Your task to perform on an android device: remove spam from my inbox in the gmail app Image 0: 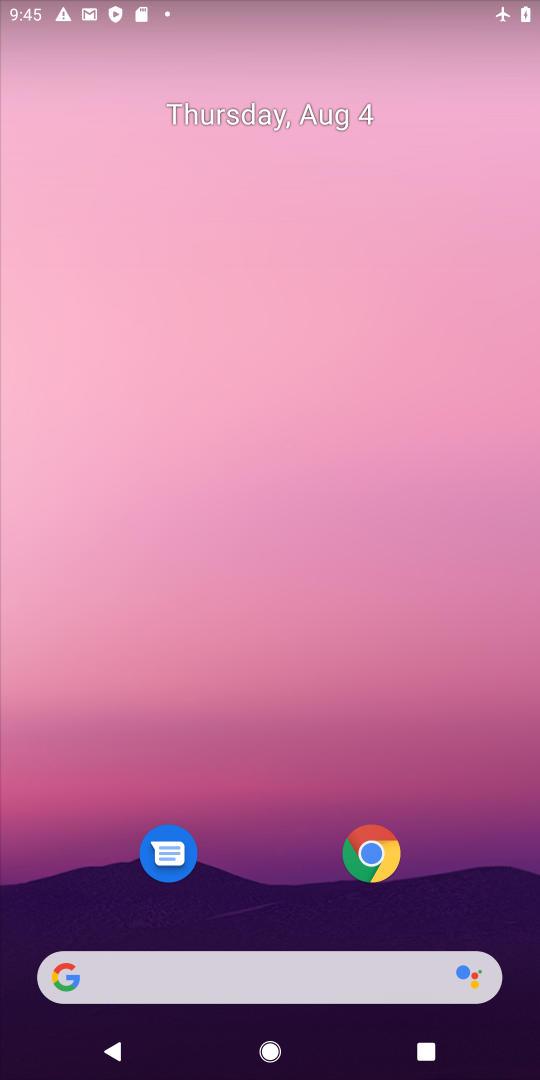
Step 0: press home button
Your task to perform on an android device: remove spam from my inbox in the gmail app Image 1: 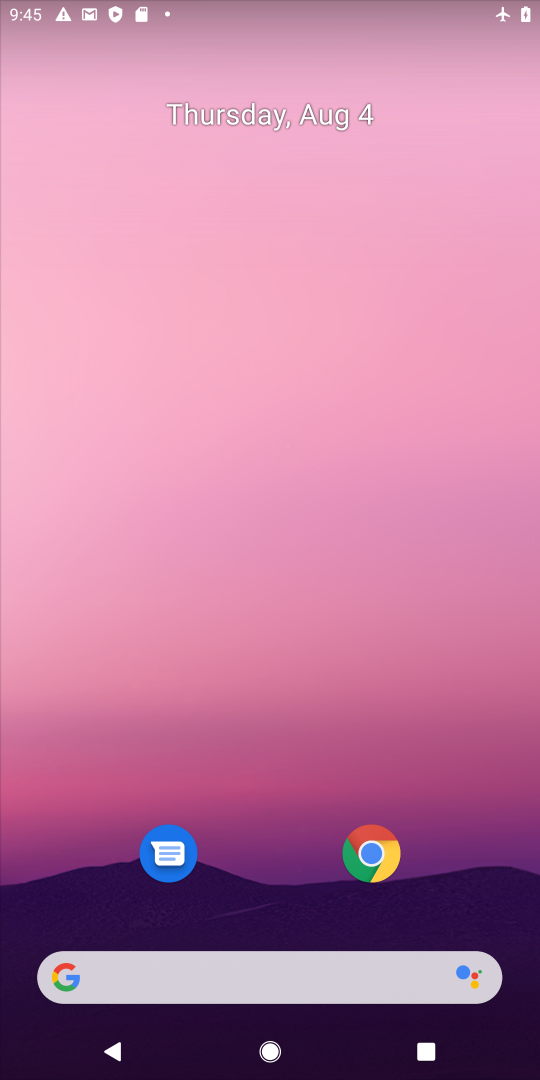
Step 1: drag from (220, 875) to (231, 89)
Your task to perform on an android device: remove spam from my inbox in the gmail app Image 2: 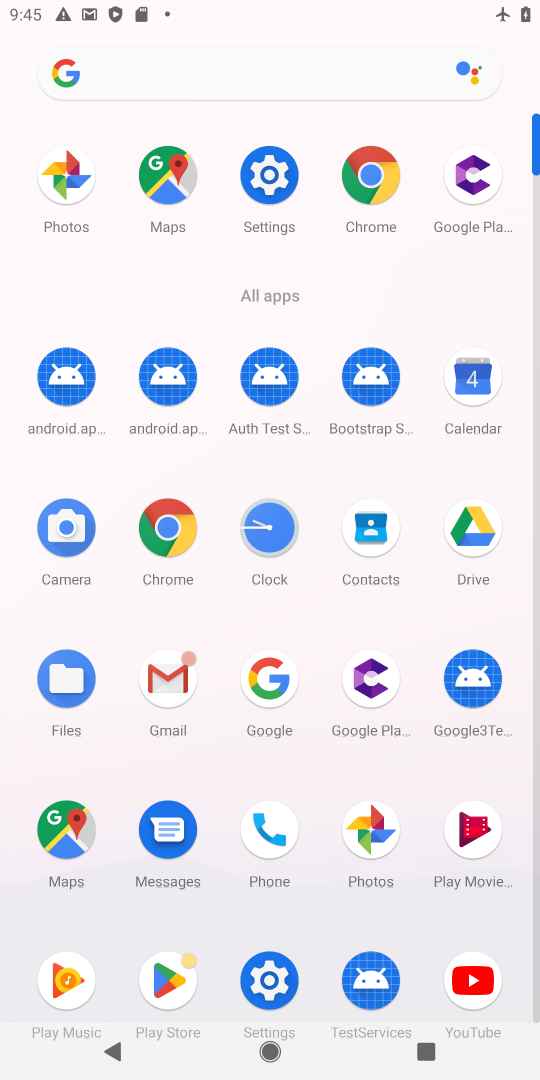
Step 2: click (163, 672)
Your task to perform on an android device: remove spam from my inbox in the gmail app Image 3: 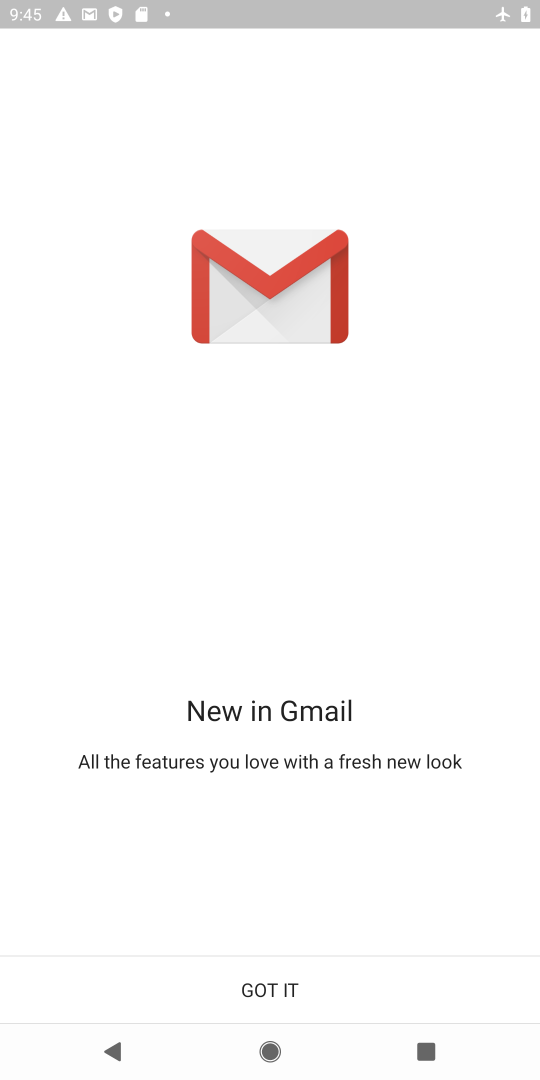
Step 3: click (305, 990)
Your task to perform on an android device: remove spam from my inbox in the gmail app Image 4: 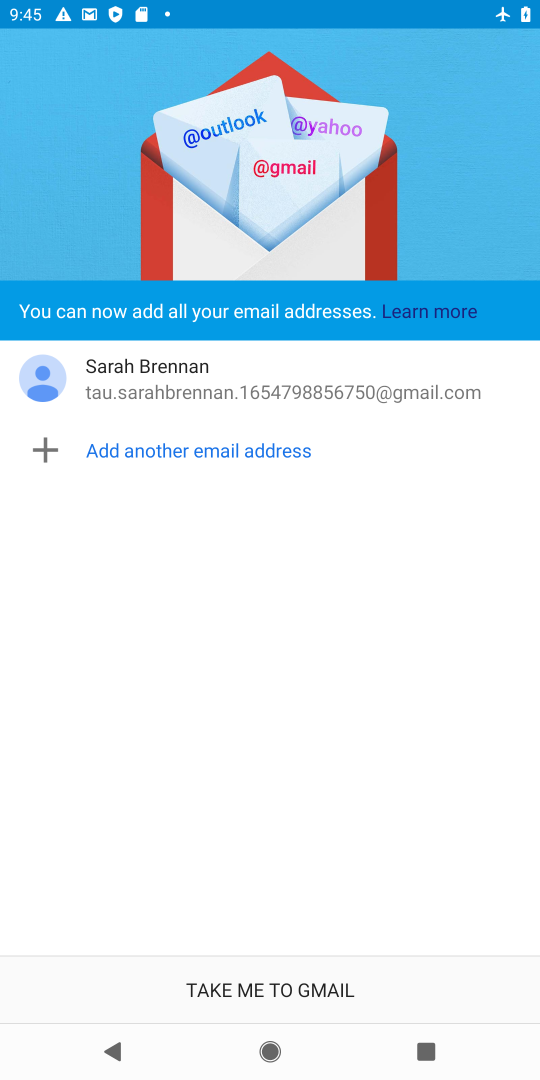
Step 4: click (304, 993)
Your task to perform on an android device: remove spam from my inbox in the gmail app Image 5: 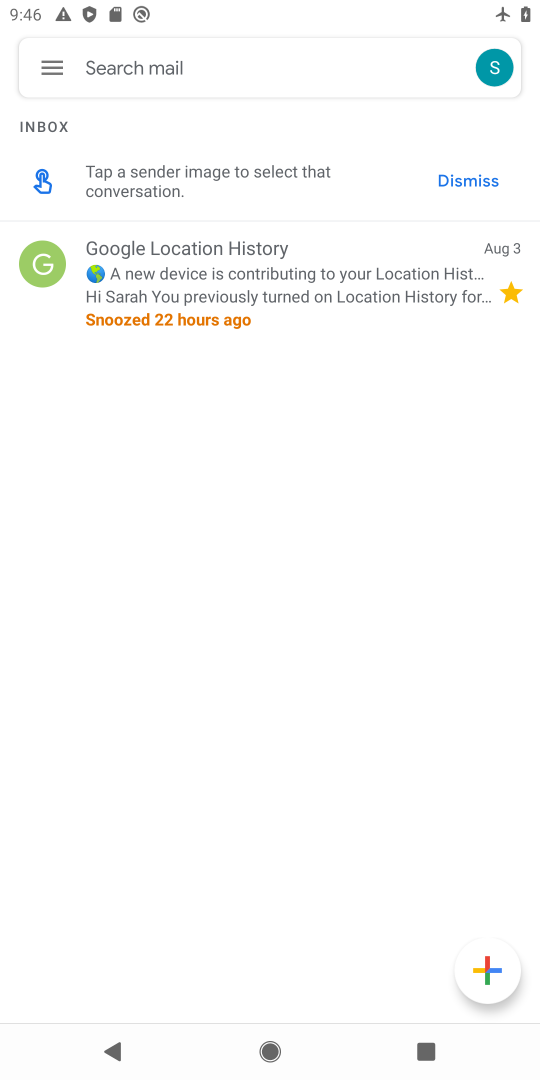
Step 5: click (50, 75)
Your task to perform on an android device: remove spam from my inbox in the gmail app Image 6: 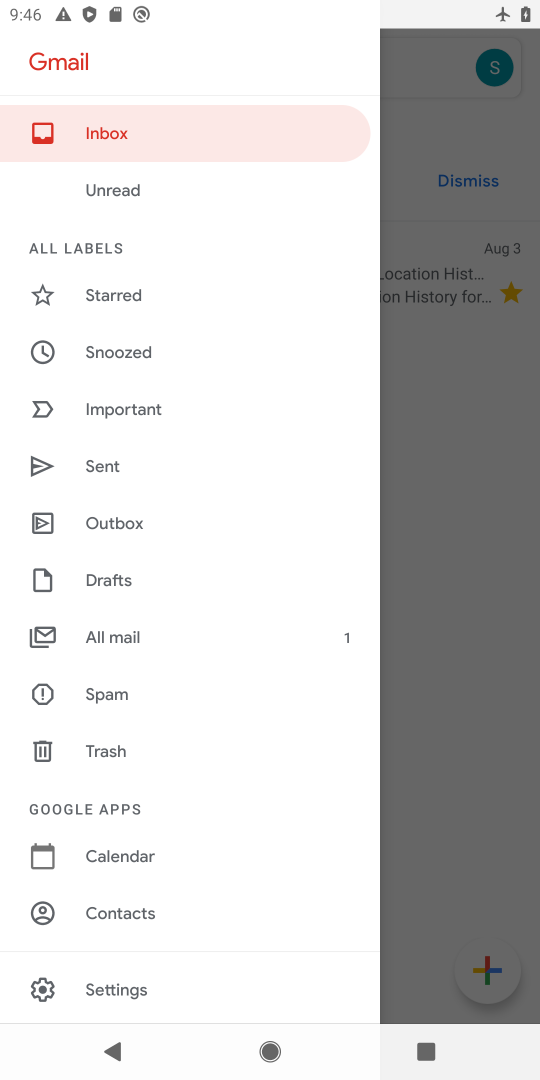
Step 6: click (107, 681)
Your task to perform on an android device: remove spam from my inbox in the gmail app Image 7: 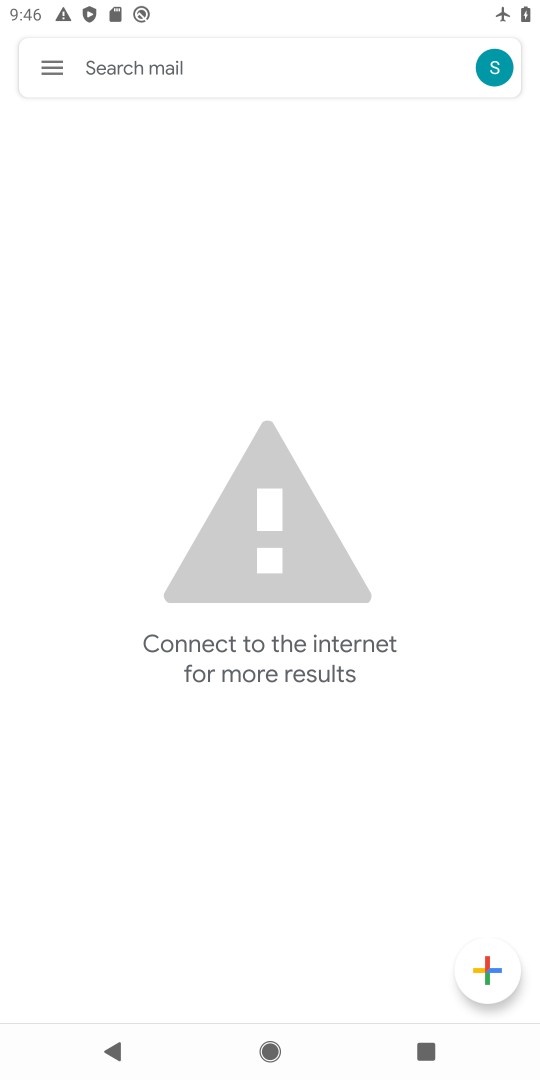
Step 7: task complete